Your task to perform on an android device: Go to internet settings Image 0: 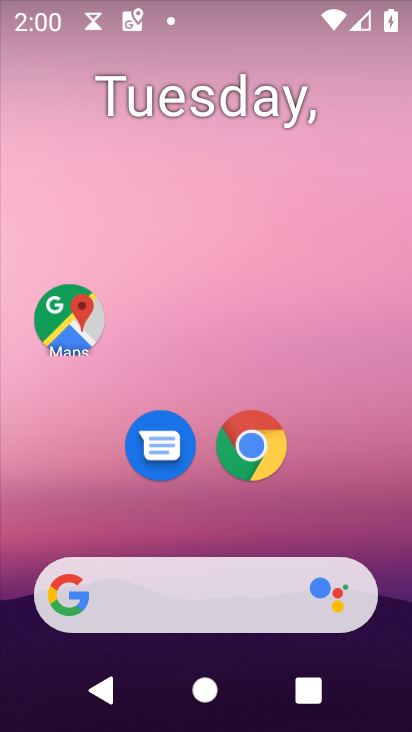
Step 0: drag from (351, 478) to (242, 113)
Your task to perform on an android device: Go to internet settings Image 1: 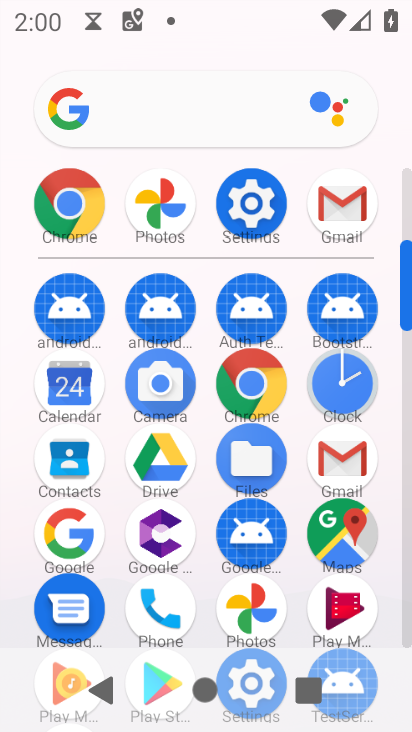
Step 1: click (263, 186)
Your task to perform on an android device: Go to internet settings Image 2: 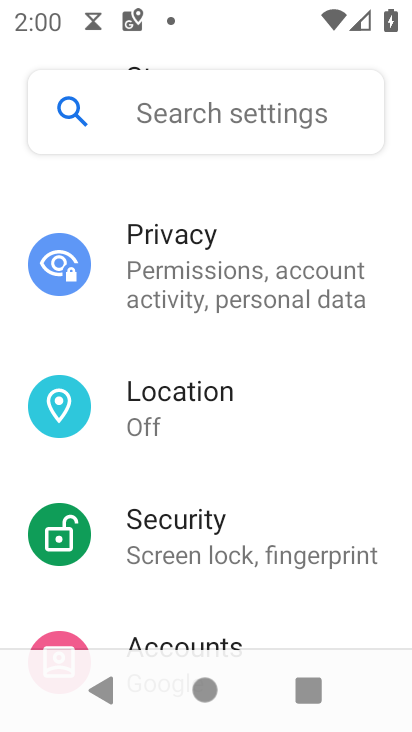
Step 2: drag from (218, 211) to (323, 567)
Your task to perform on an android device: Go to internet settings Image 3: 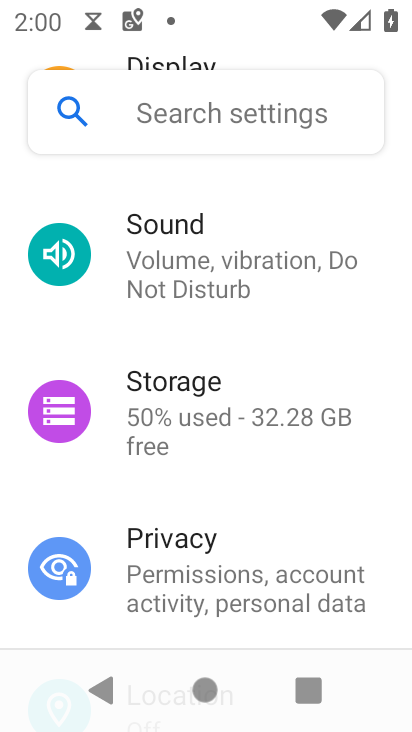
Step 3: drag from (271, 280) to (358, 600)
Your task to perform on an android device: Go to internet settings Image 4: 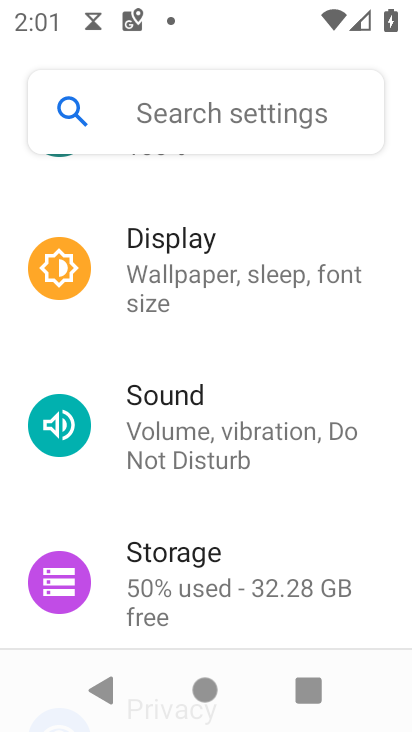
Step 4: drag from (270, 407) to (334, 636)
Your task to perform on an android device: Go to internet settings Image 5: 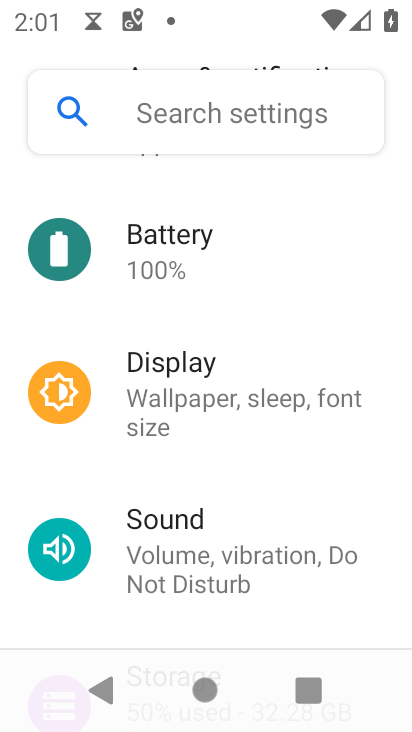
Step 5: drag from (263, 255) to (368, 610)
Your task to perform on an android device: Go to internet settings Image 6: 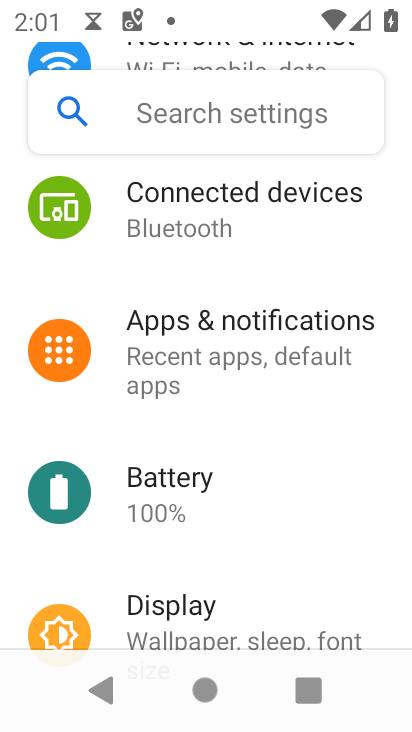
Step 6: drag from (247, 267) to (293, 482)
Your task to perform on an android device: Go to internet settings Image 7: 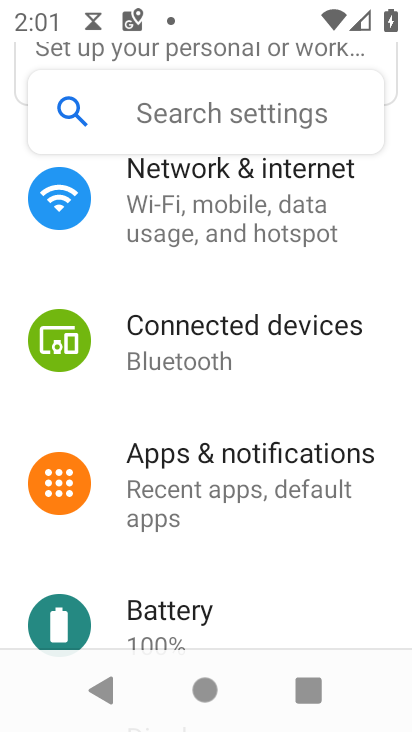
Step 7: drag from (204, 288) to (325, 593)
Your task to perform on an android device: Go to internet settings Image 8: 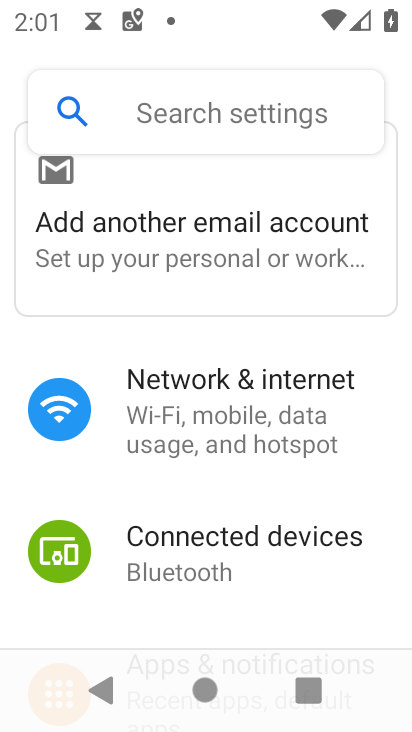
Step 8: click (209, 378)
Your task to perform on an android device: Go to internet settings Image 9: 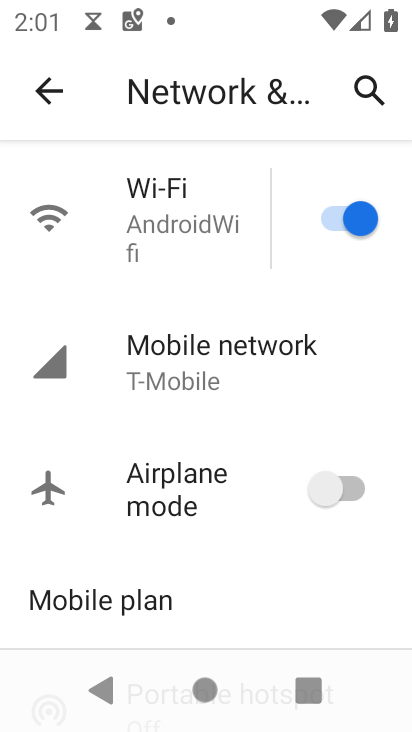
Step 9: task complete